Your task to perform on an android device: find snoozed emails in the gmail app Image 0: 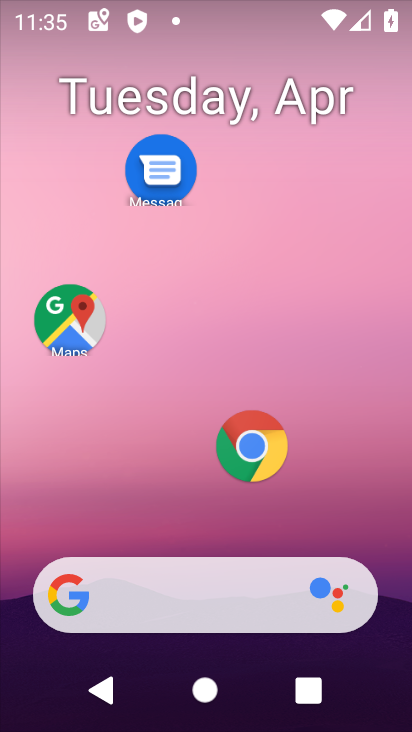
Step 0: drag from (312, 448) to (301, 55)
Your task to perform on an android device: find snoozed emails in the gmail app Image 1: 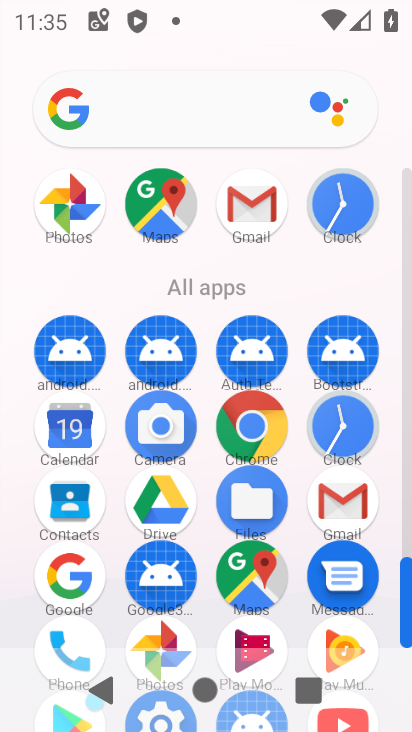
Step 1: click (248, 210)
Your task to perform on an android device: find snoozed emails in the gmail app Image 2: 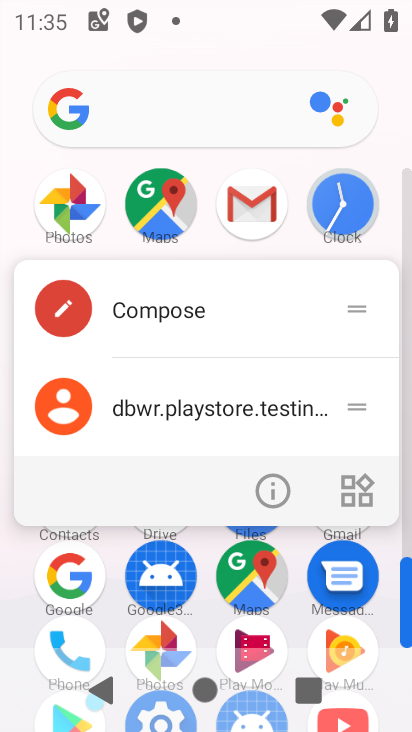
Step 2: click (296, 173)
Your task to perform on an android device: find snoozed emails in the gmail app Image 3: 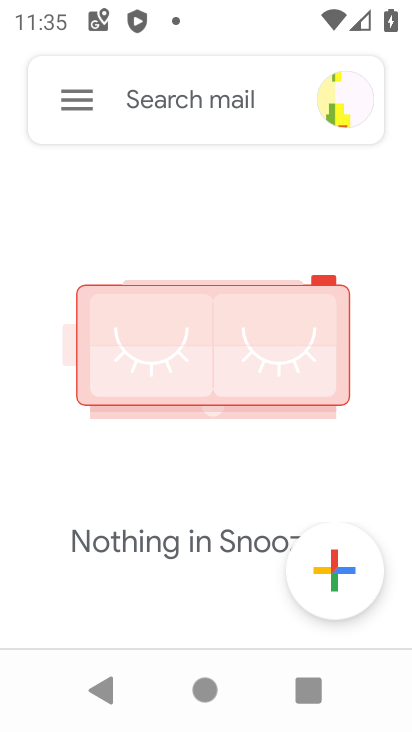
Step 3: press back button
Your task to perform on an android device: find snoozed emails in the gmail app Image 4: 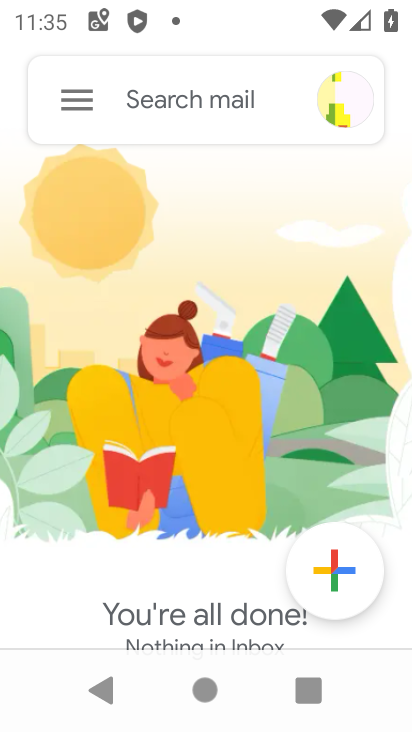
Step 4: click (61, 94)
Your task to perform on an android device: find snoozed emails in the gmail app Image 5: 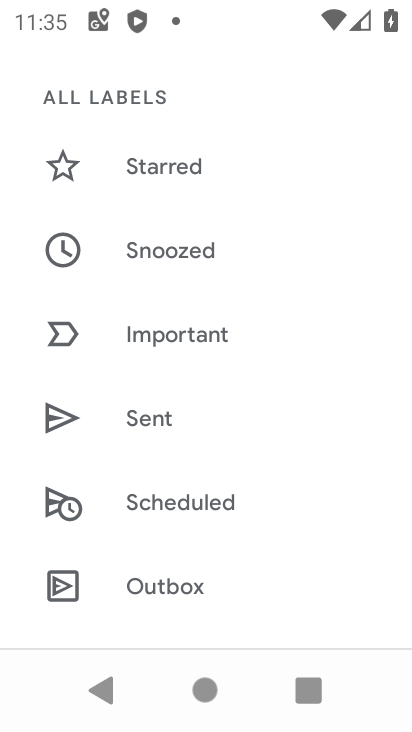
Step 5: click (215, 272)
Your task to perform on an android device: find snoozed emails in the gmail app Image 6: 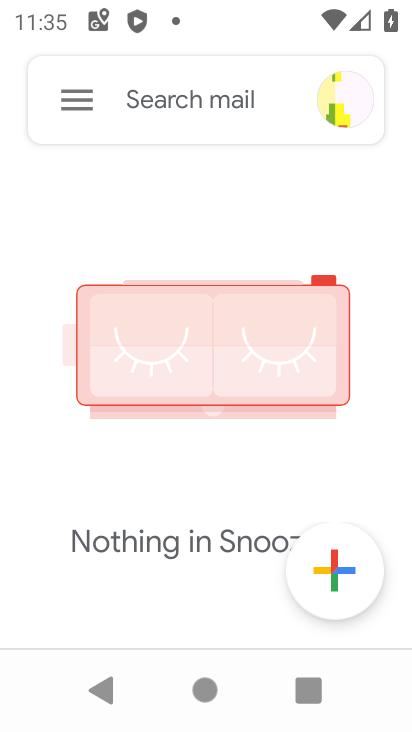
Step 6: task complete